Your task to perform on an android device: Search for sushi restaurants on Maps Image 0: 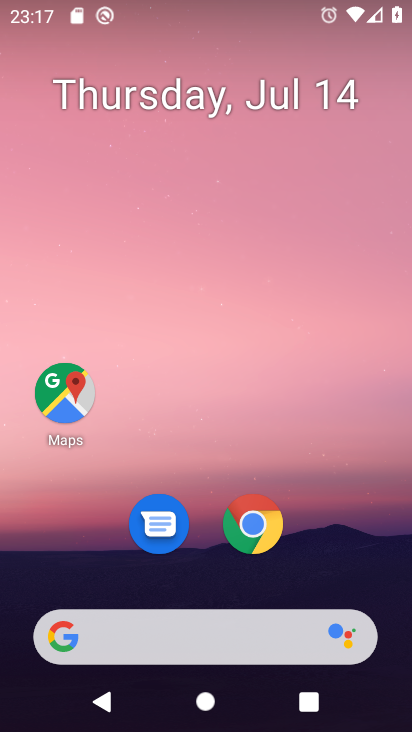
Step 0: click (64, 397)
Your task to perform on an android device: Search for sushi restaurants on Maps Image 1: 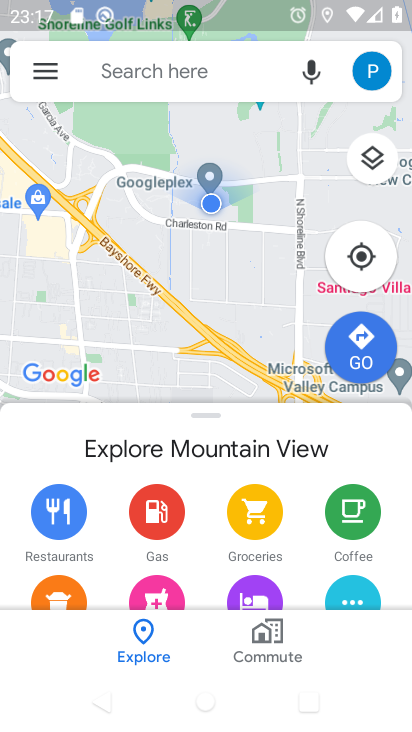
Step 1: click (131, 72)
Your task to perform on an android device: Search for sushi restaurants on Maps Image 2: 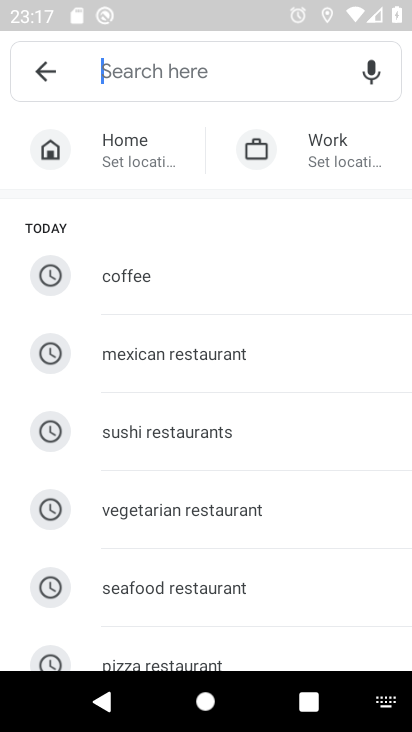
Step 2: click (196, 427)
Your task to perform on an android device: Search for sushi restaurants on Maps Image 3: 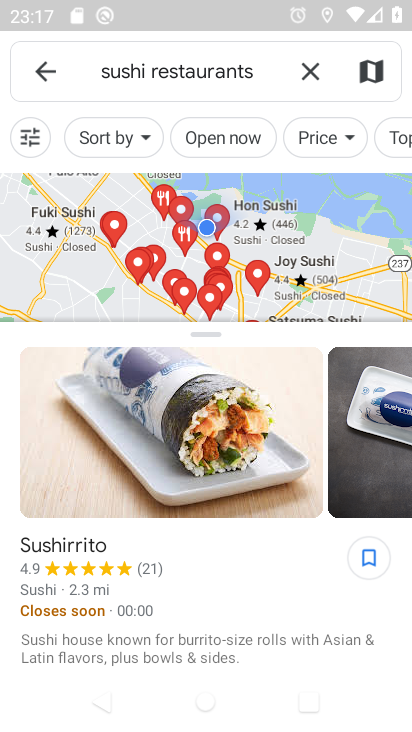
Step 3: task complete